Your task to perform on an android device: open chrome and create a bookmark for the current page Image 0: 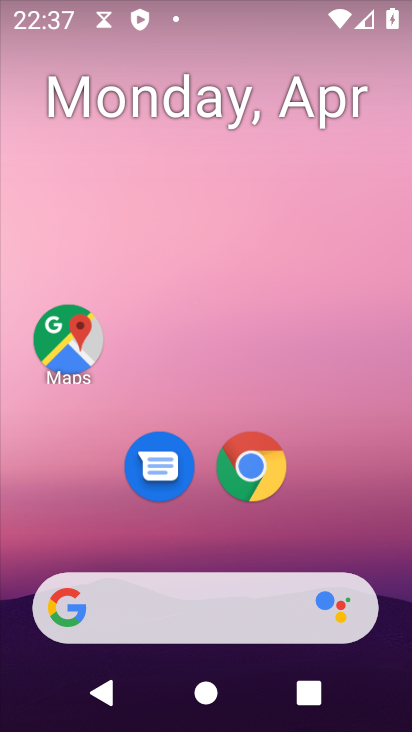
Step 0: click (251, 472)
Your task to perform on an android device: open chrome and create a bookmark for the current page Image 1: 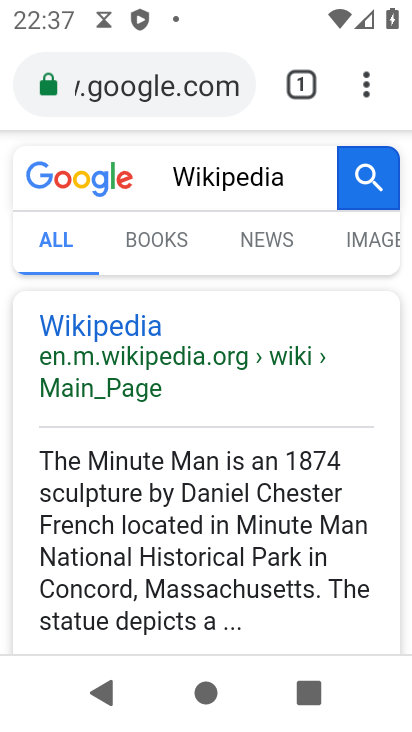
Step 1: click (370, 90)
Your task to perform on an android device: open chrome and create a bookmark for the current page Image 2: 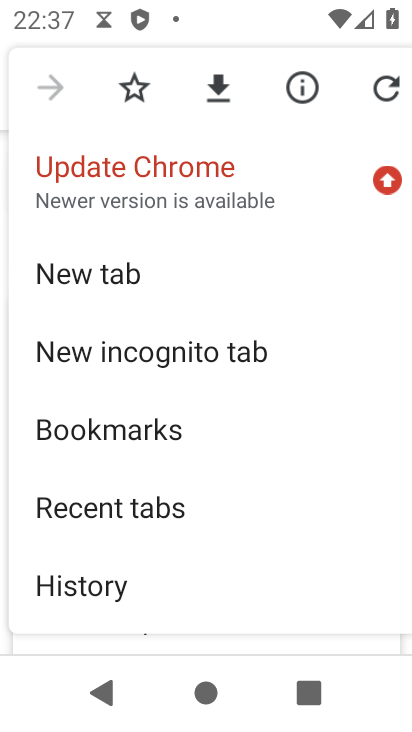
Step 2: click (134, 94)
Your task to perform on an android device: open chrome and create a bookmark for the current page Image 3: 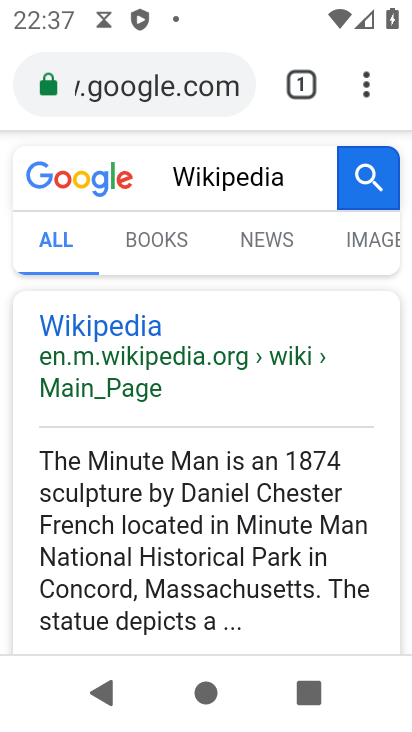
Step 3: task complete